Your task to perform on an android device: snooze an email in the gmail app Image 0: 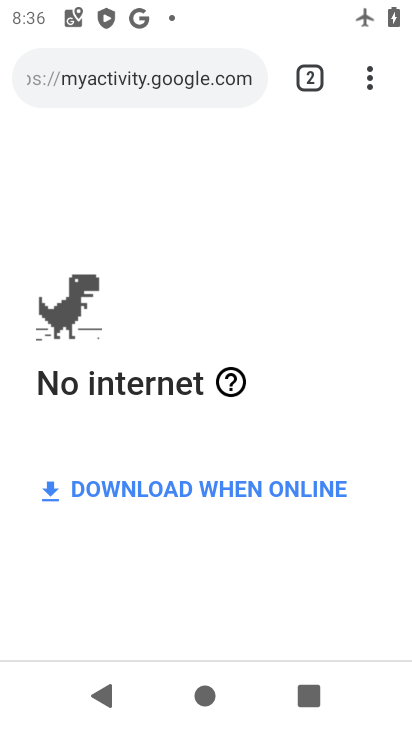
Step 0: press home button
Your task to perform on an android device: snooze an email in the gmail app Image 1: 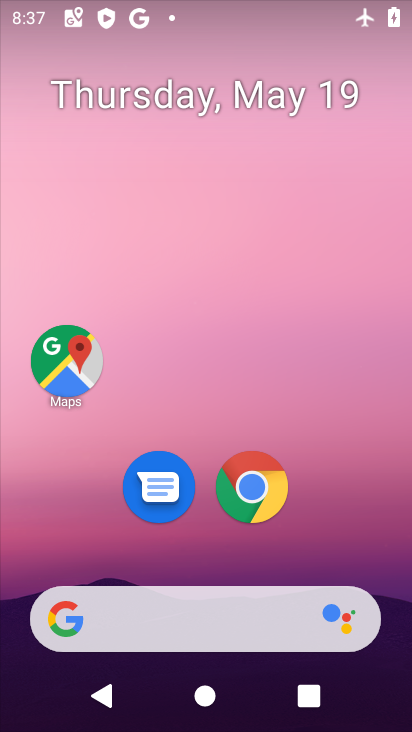
Step 1: drag from (202, 572) to (216, 5)
Your task to perform on an android device: snooze an email in the gmail app Image 2: 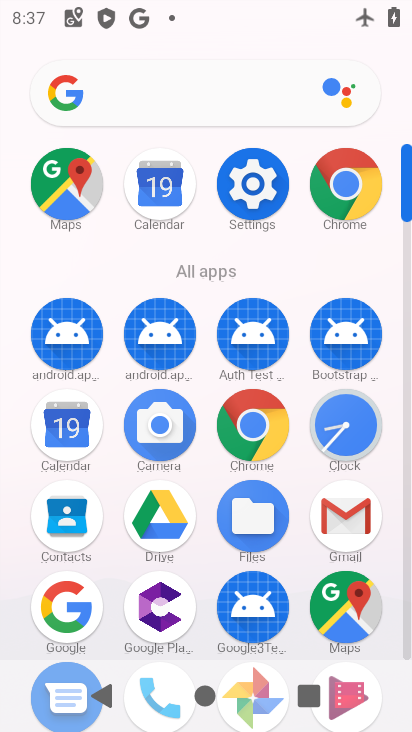
Step 2: click (359, 513)
Your task to perform on an android device: snooze an email in the gmail app Image 3: 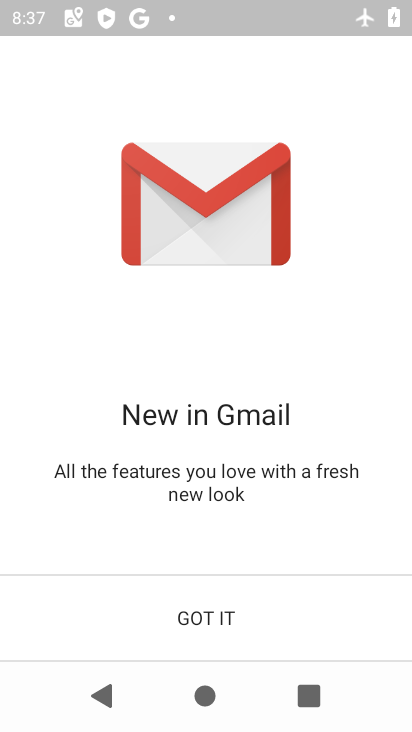
Step 3: click (169, 635)
Your task to perform on an android device: snooze an email in the gmail app Image 4: 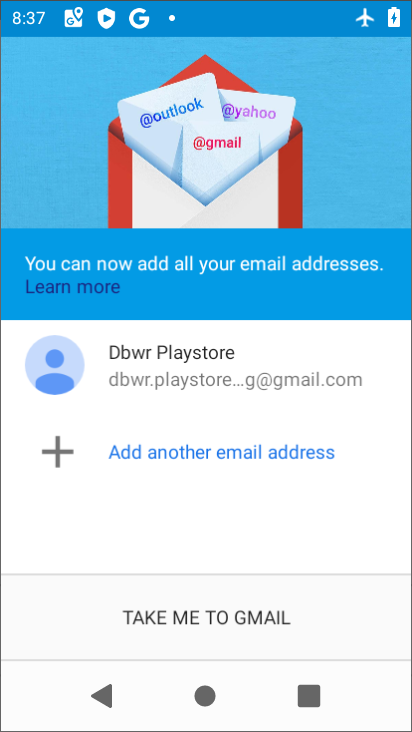
Step 4: click (169, 635)
Your task to perform on an android device: snooze an email in the gmail app Image 5: 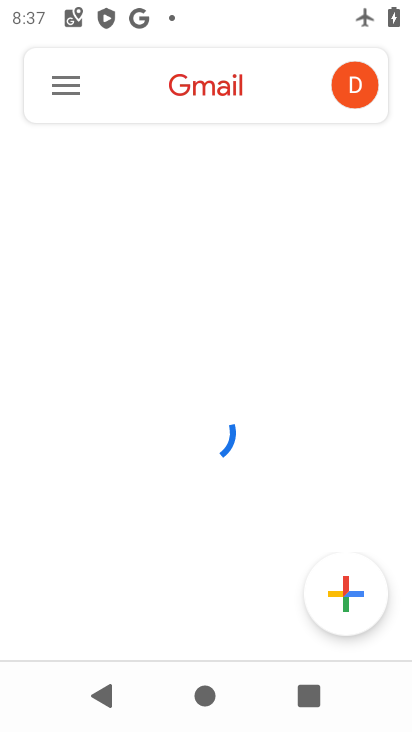
Step 5: click (66, 92)
Your task to perform on an android device: snooze an email in the gmail app Image 6: 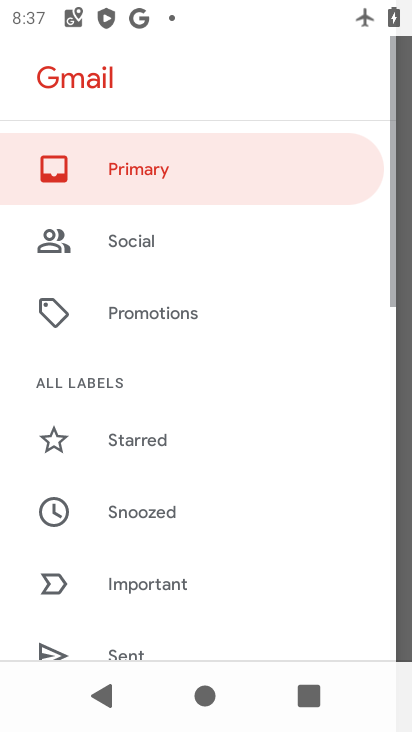
Step 6: click (119, 375)
Your task to perform on an android device: snooze an email in the gmail app Image 7: 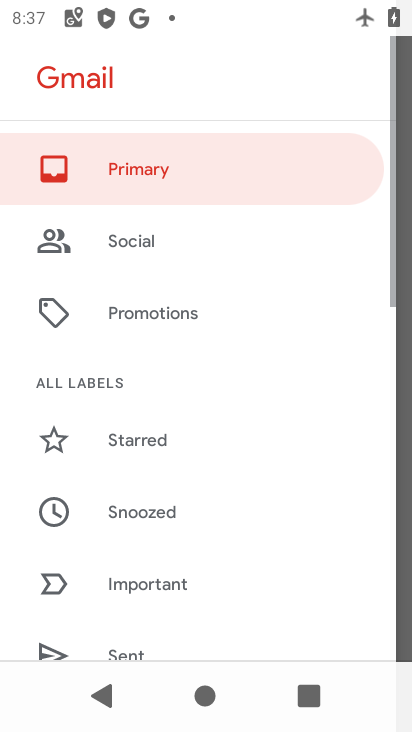
Step 7: drag from (119, 375) to (124, 172)
Your task to perform on an android device: snooze an email in the gmail app Image 8: 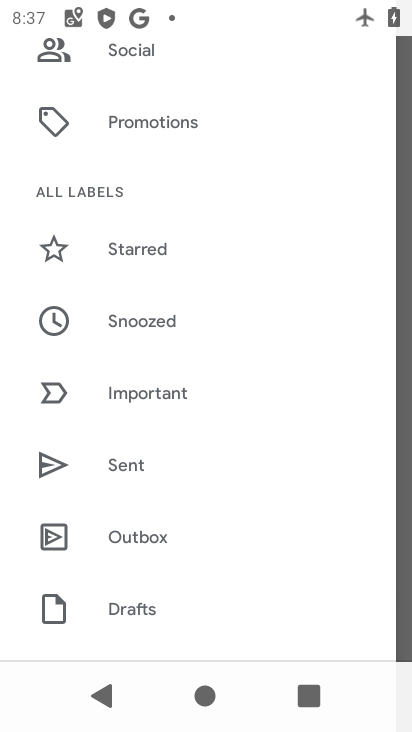
Step 8: drag from (171, 608) to (164, 235)
Your task to perform on an android device: snooze an email in the gmail app Image 9: 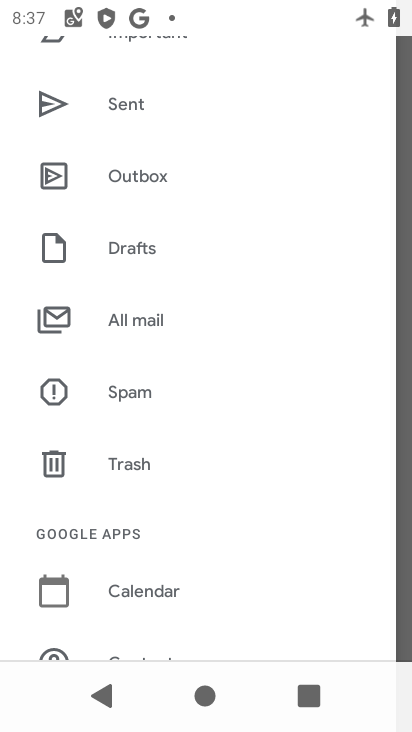
Step 9: click (141, 325)
Your task to perform on an android device: snooze an email in the gmail app Image 10: 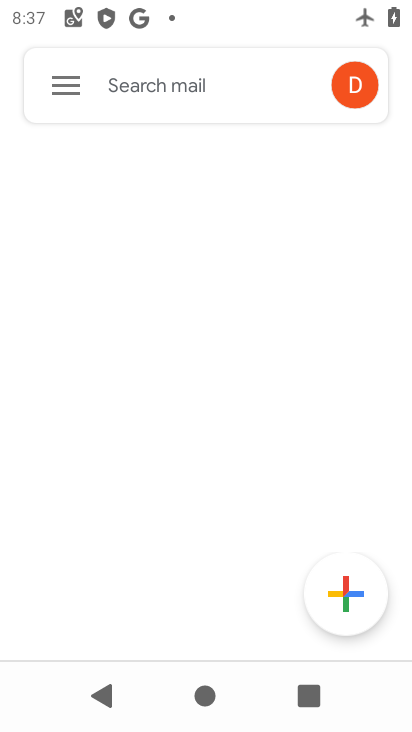
Step 10: task complete